Your task to perform on an android device: add a label to a message in the gmail app Image 0: 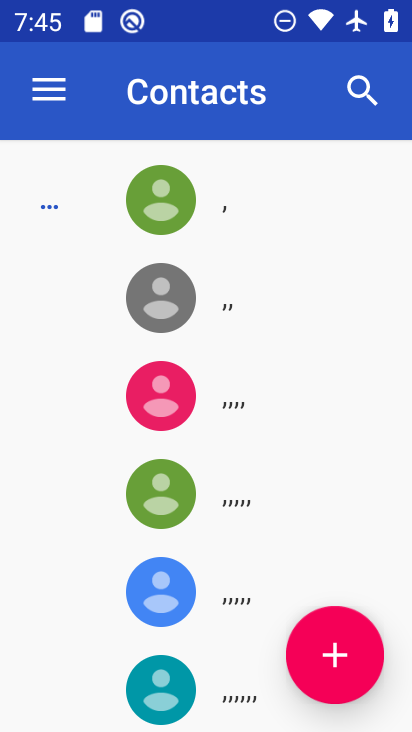
Step 0: press home button
Your task to perform on an android device: add a label to a message in the gmail app Image 1: 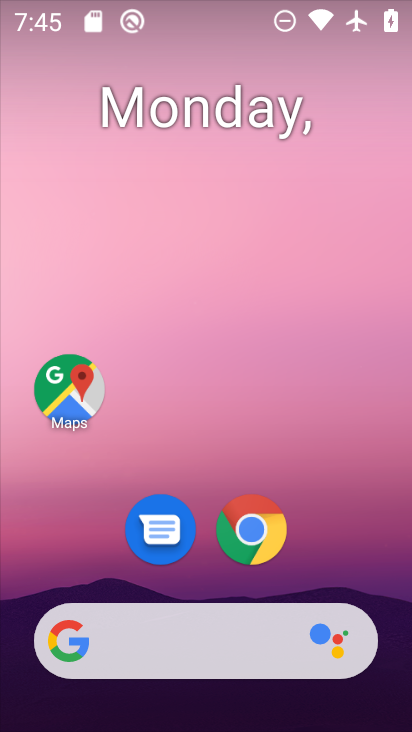
Step 1: drag from (319, 544) to (257, 93)
Your task to perform on an android device: add a label to a message in the gmail app Image 2: 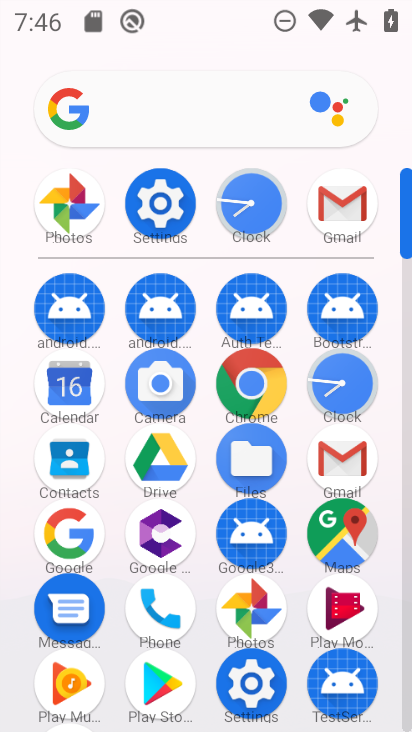
Step 2: click (345, 201)
Your task to perform on an android device: add a label to a message in the gmail app Image 3: 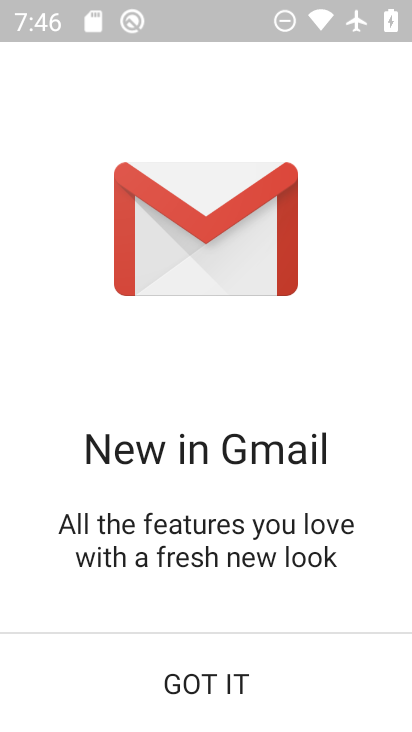
Step 3: click (211, 687)
Your task to perform on an android device: add a label to a message in the gmail app Image 4: 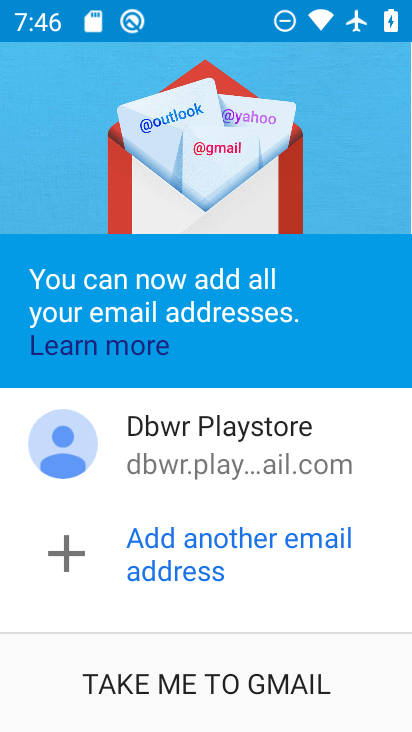
Step 4: click (205, 687)
Your task to perform on an android device: add a label to a message in the gmail app Image 5: 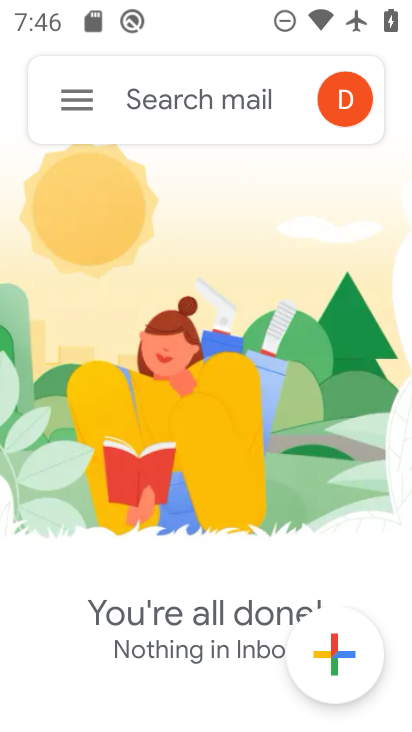
Step 5: click (64, 108)
Your task to perform on an android device: add a label to a message in the gmail app Image 6: 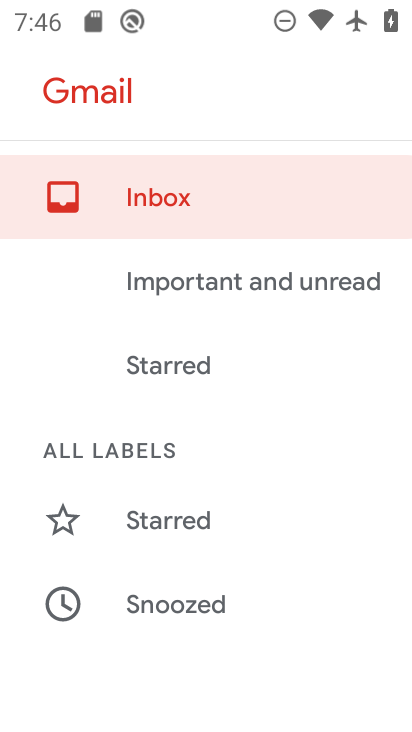
Step 6: drag from (275, 520) to (271, 312)
Your task to perform on an android device: add a label to a message in the gmail app Image 7: 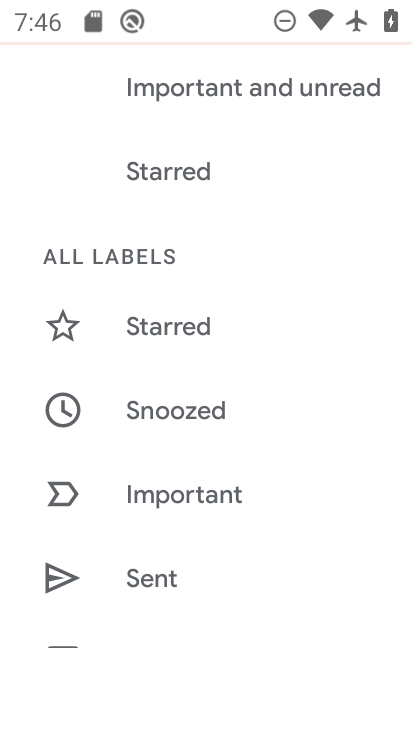
Step 7: drag from (253, 511) to (226, 244)
Your task to perform on an android device: add a label to a message in the gmail app Image 8: 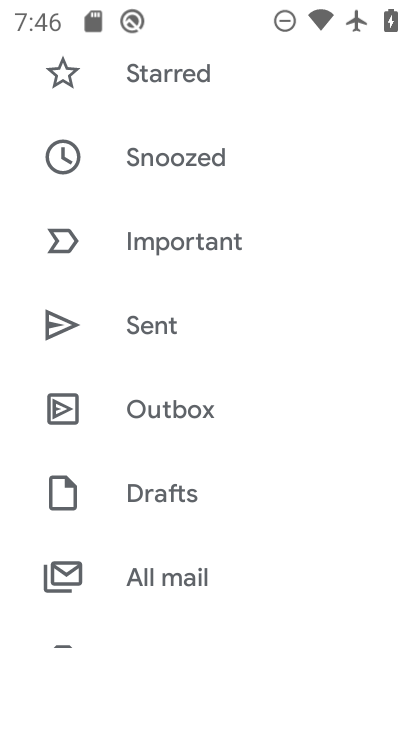
Step 8: click (170, 561)
Your task to perform on an android device: add a label to a message in the gmail app Image 9: 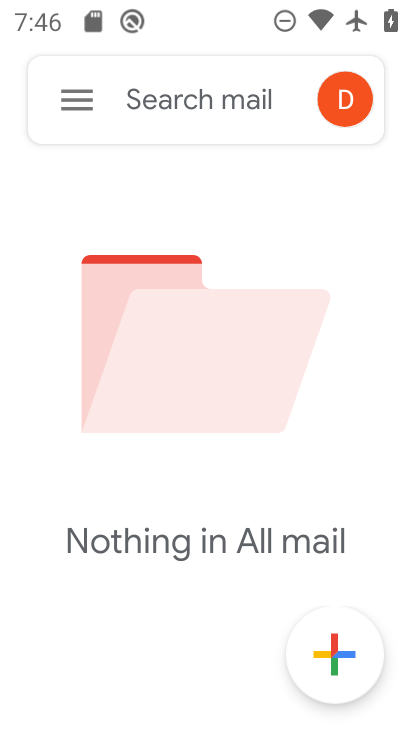
Step 9: task complete